Your task to perform on an android device: Open Amazon Image 0: 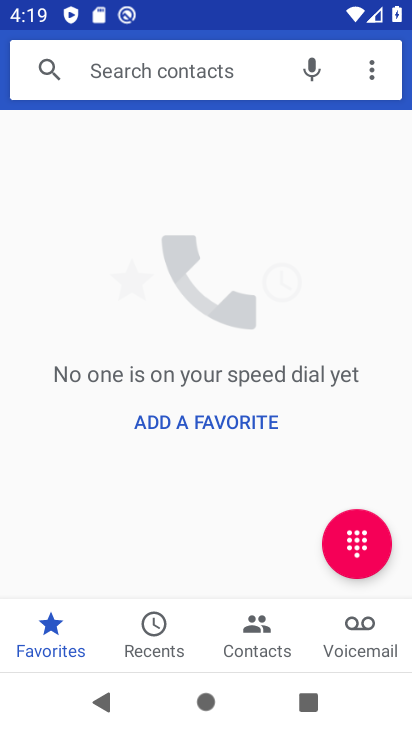
Step 0: press back button
Your task to perform on an android device: Open Amazon Image 1: 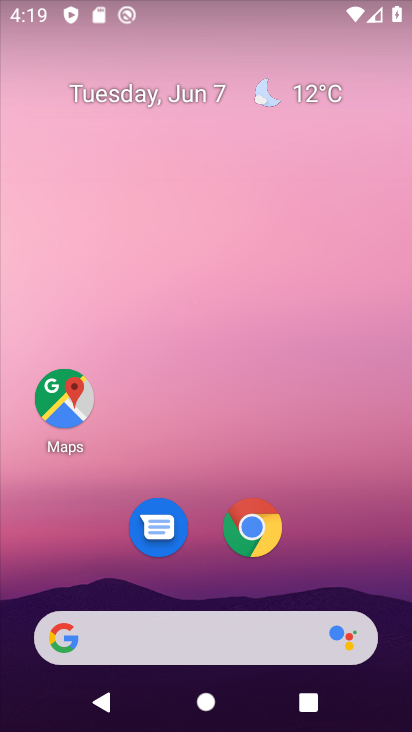
Step 1: click (251, 525)
Your task to perform on an android device: Open Amazon Image 2: 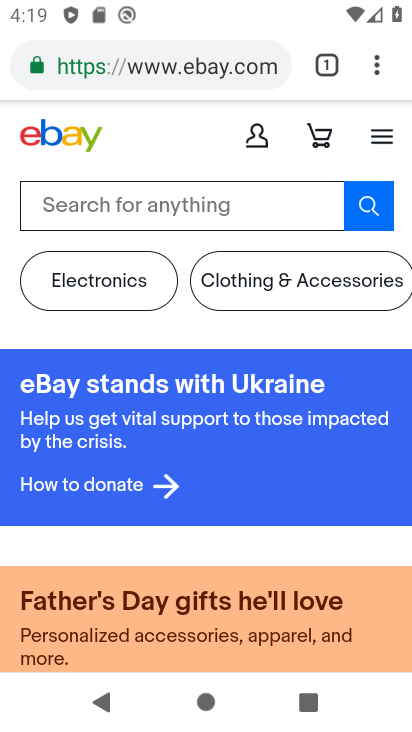
Step 2: click (220, 79)
Your task to perform on an android device: Open Amazon Image 3: 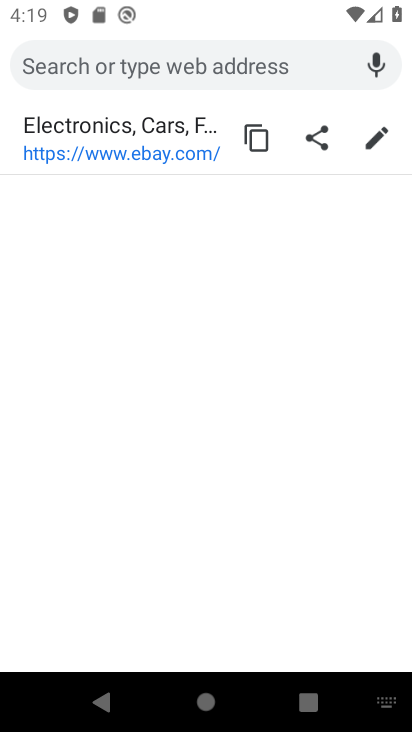
Step 3: type "Amazon"
Your task to perform on an android device: Open Amazon Image 4: 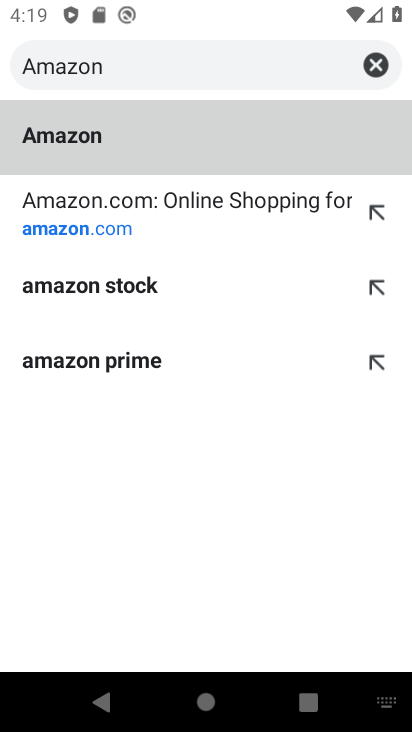
Step 4: click (55, 131)
Your task to perform on an android device: Open Amazon Image 5: 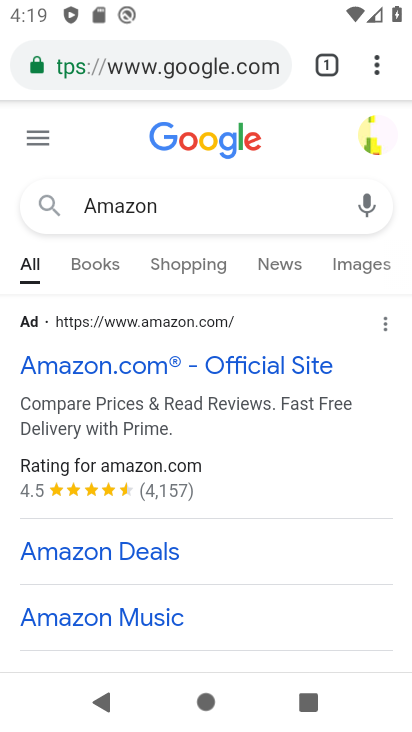
Step 5: click (120, 375)
Your task to perform on an android device: Open Amazon Image 6: 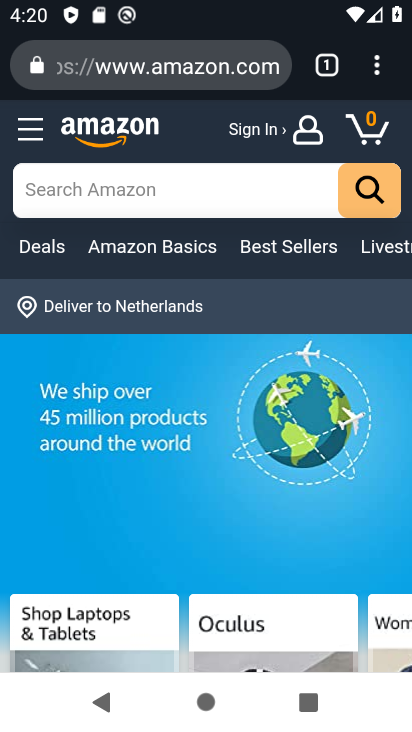
Step 6: task complete